Your task to perform on an android device: turn on improve location accuracy Image 0: 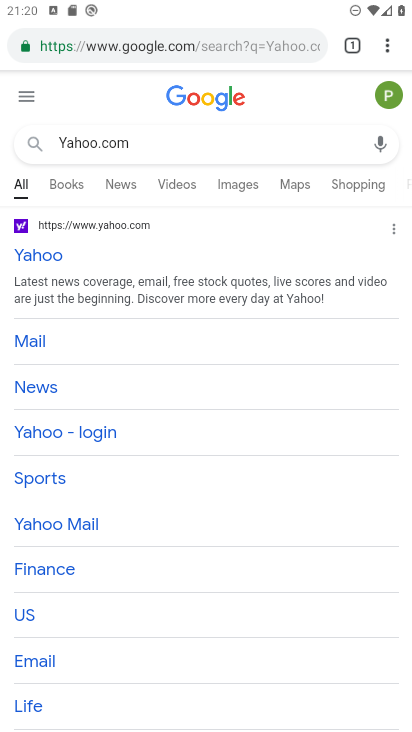
Step 0: press home button
Your task to perform on an android device: turn on improve location accuracy Image 1: 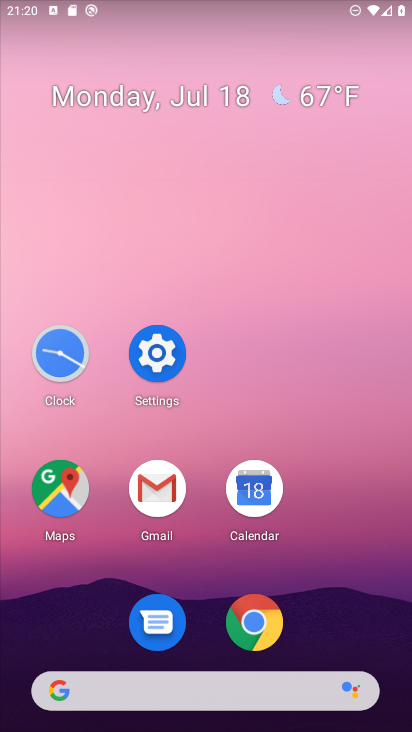
Step 1: click (154, 354)
Your task to perform on an android device: turn on improve location accuracy Image 2: 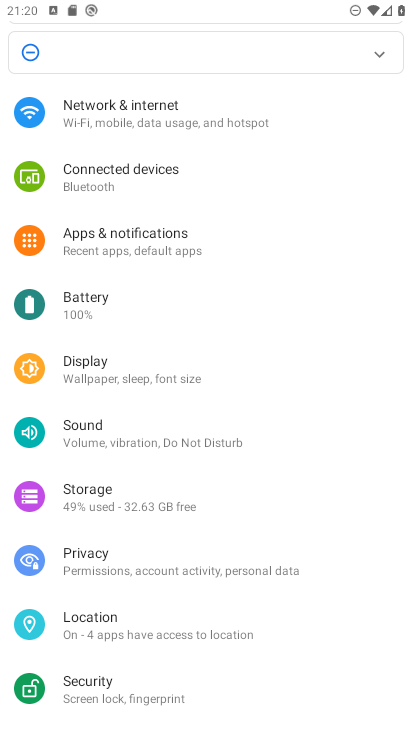
Step 2: click (86, 622)
Your task to perform on an android device: turn on improve location accuracy Image 3: 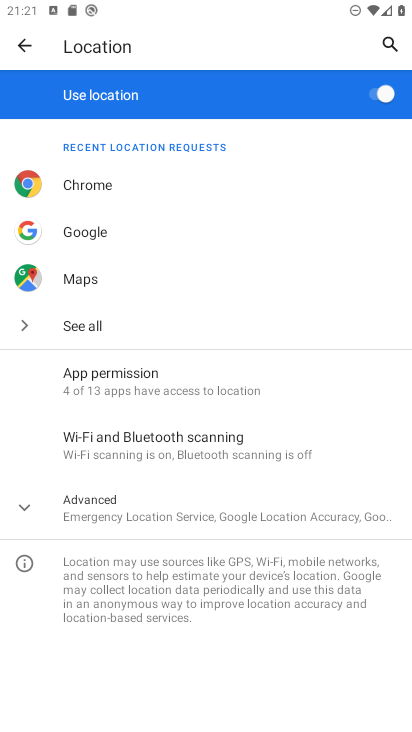
Step 3: click (18, 504)
Your task to perform on an android device: turn on improve location accuracy Image 4: 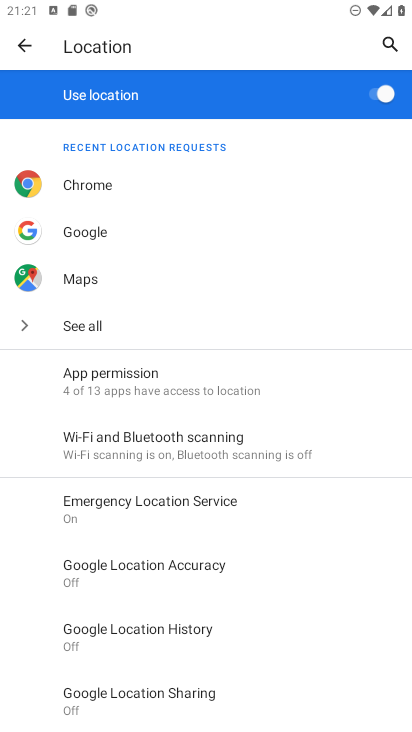
Step 4: click (136, 572)
Your task to perform on an android device: turn on improve location accuracy Image 5: 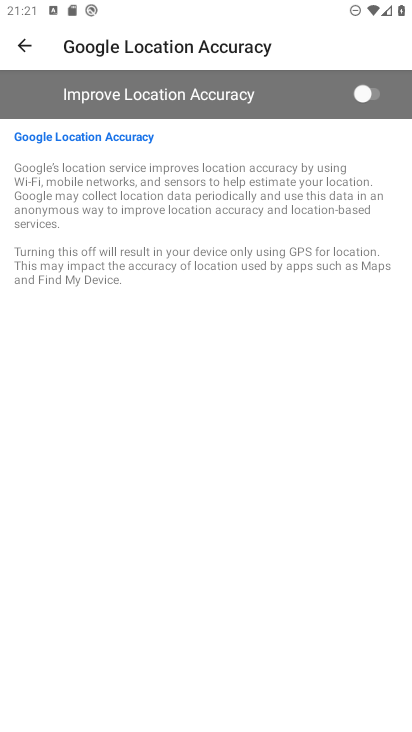
Step 5: click (366, 92)
Your task to perform on an android device: turn on improve location accuracy Image 6: 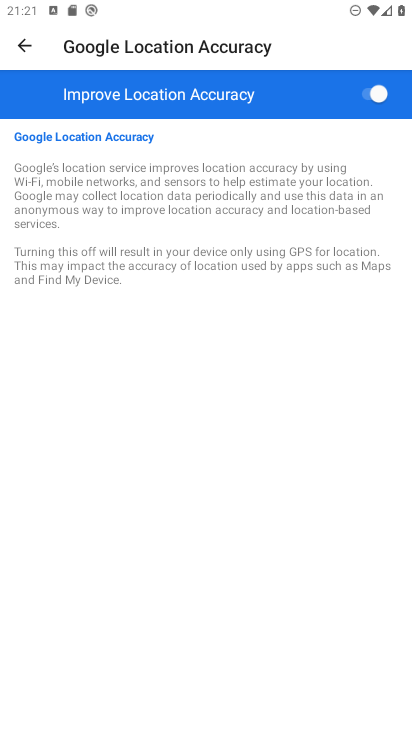
Step 6: task complete